Your task to perform on an android device: What's the weather today? Image 0: 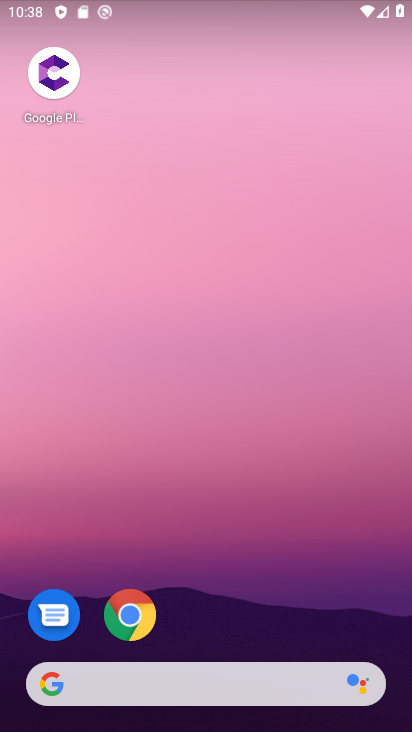
Step 0: click (165, 688)
Your task to perform on an android device: What's the weather today? Image 1: 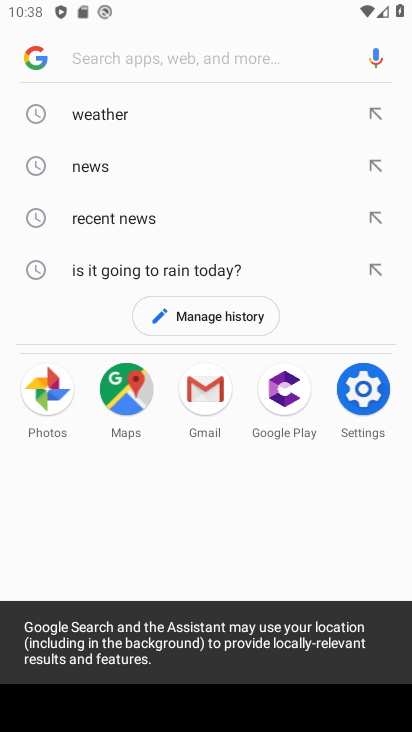
Step 1: click (203, 112)
Your task to perform on an android device: What's the weather today? Image 2: 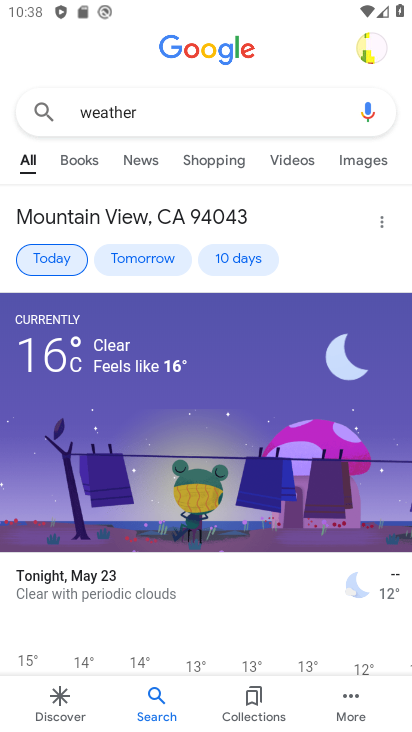
Step 2: task complete